Your task to perform on an android device: Open Amazon Image 0: 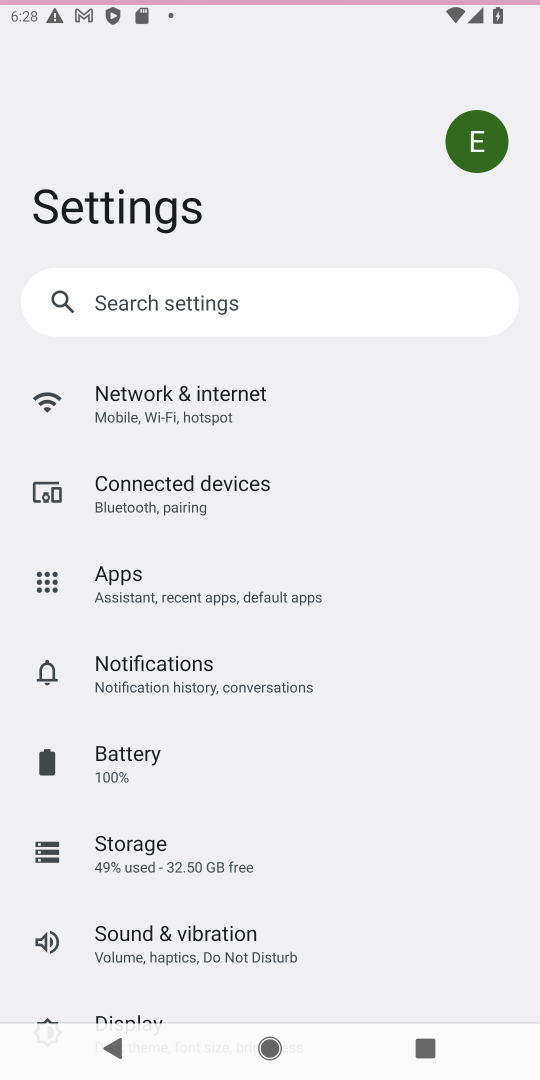
Step 0: press home button
Your task to perform on an android device: Open Amazon Image 1: 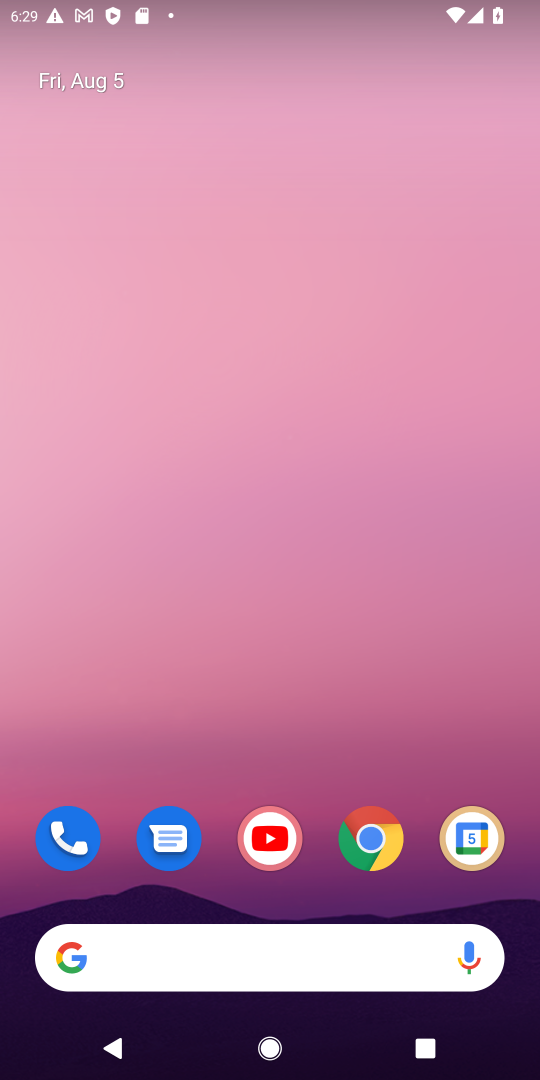
Step 1: click (68, 961)
Your task to perform on an android device: Open Amazon Image 2: 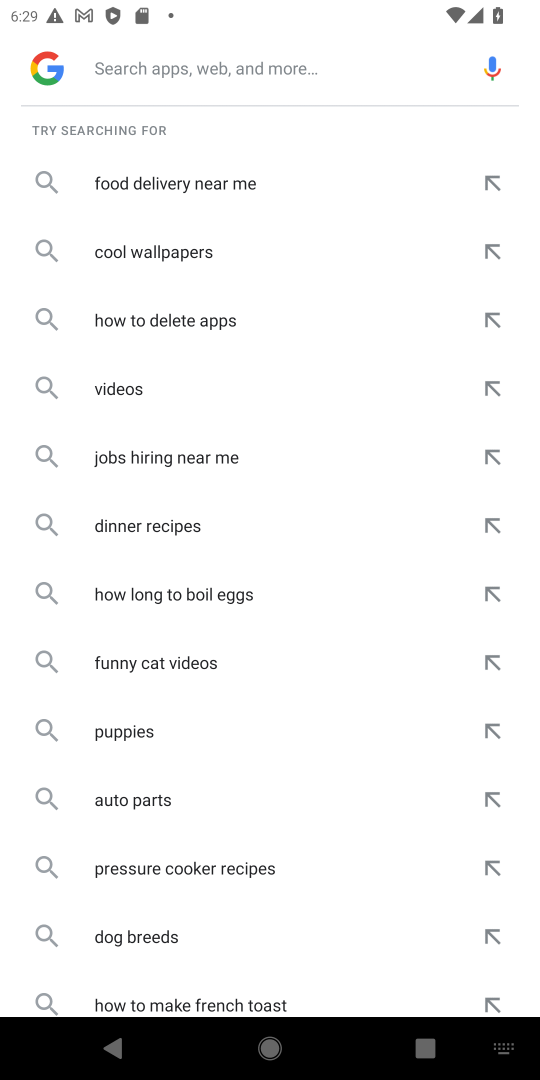
Step 2: click (181, 71)
Your task to perform on an android device: Open Amazon Image 3: 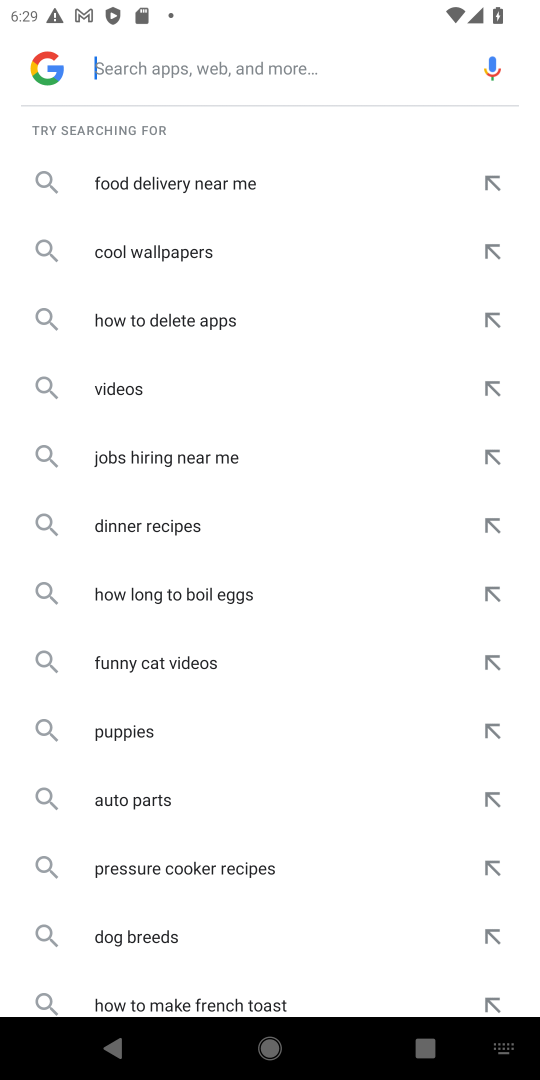
Step 3: click (169, 49)
Your task to perform on an android device: Open Amazon Image 4: 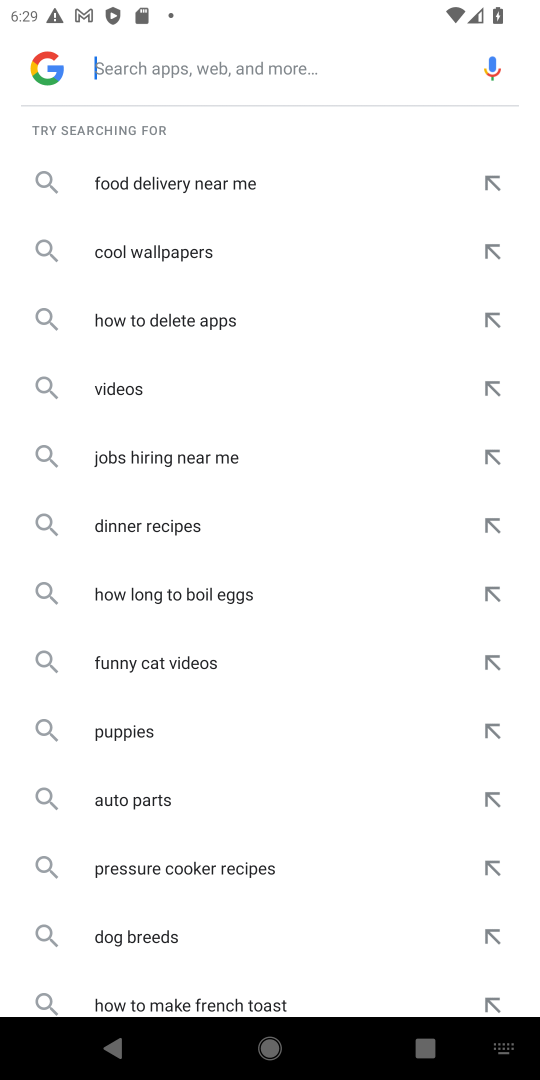
Step 4: type "Amazon"
Your task to perform on an android device: Open Amazon Image 5: 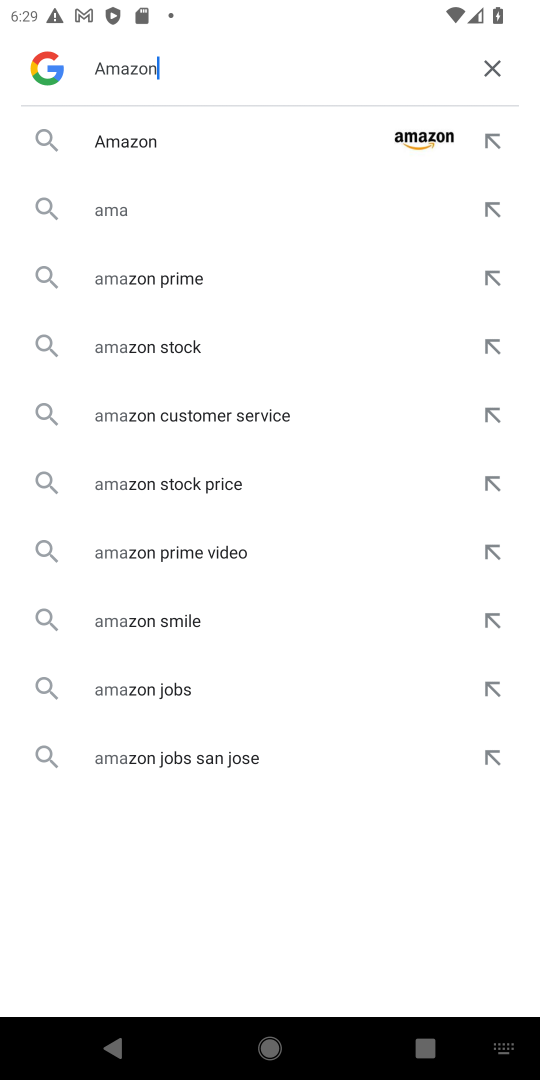
Step 5: press enter
Your task to perform on an android device: Open Amazon Image 6: 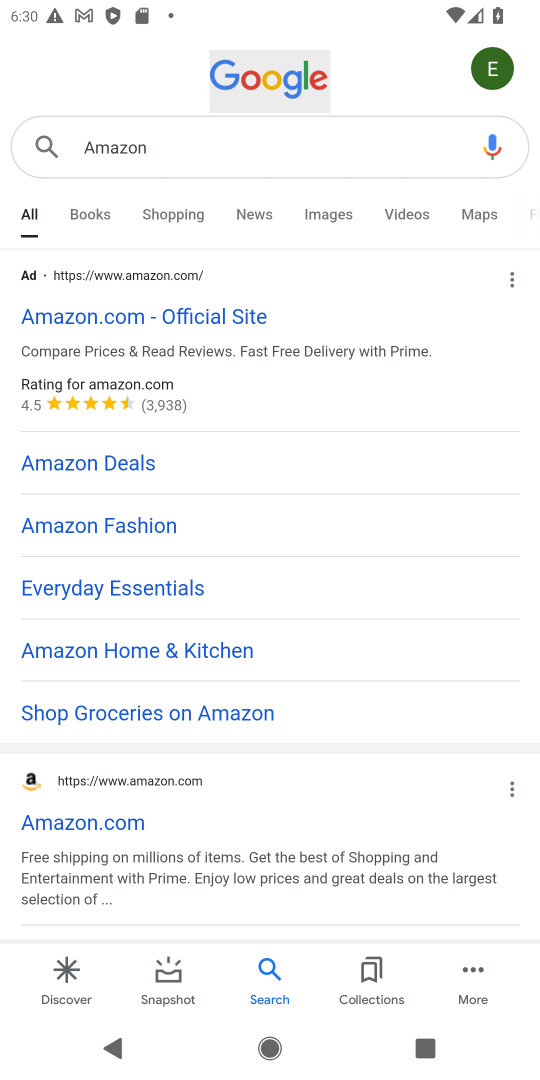
Step 6: press home button
Your task to perform on an android device: Open Amazon Image 7: 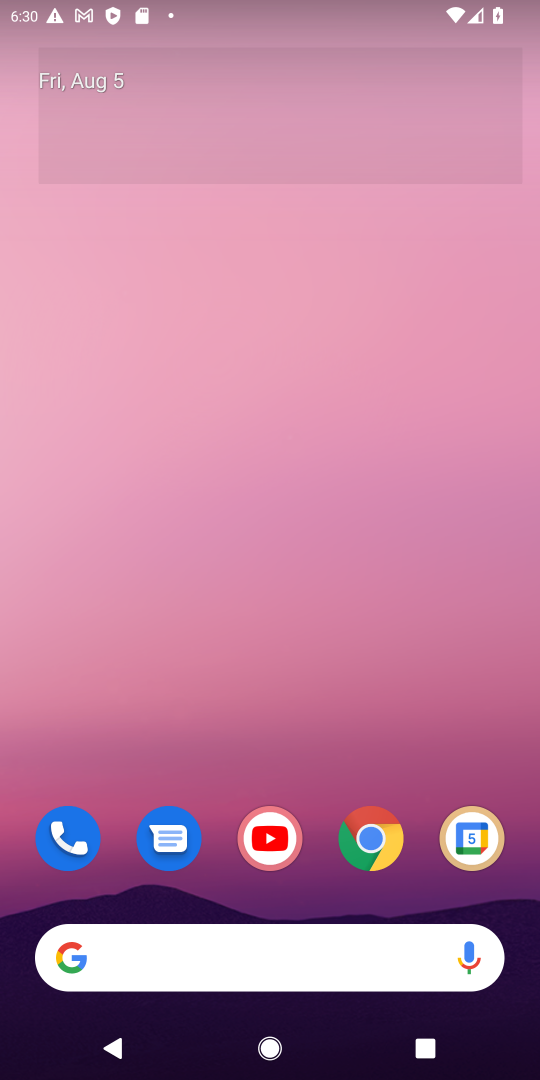
Step 7: click (79, 964)
Your task to perform on an android device: Open Amazon Image 8: 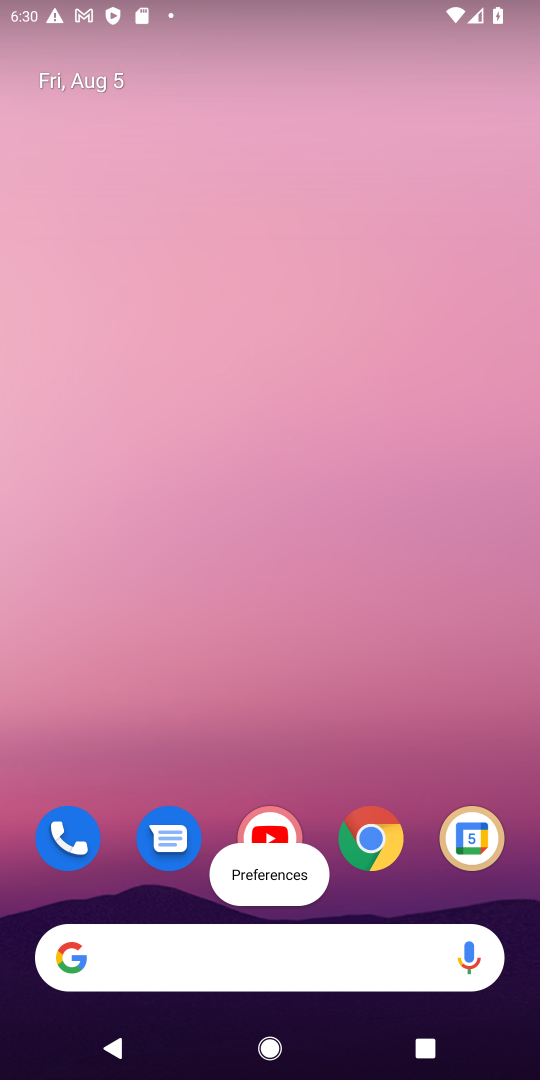
Step 8: click (79, 964)
Your task to perform on an android device: Open Amazon Image 9: 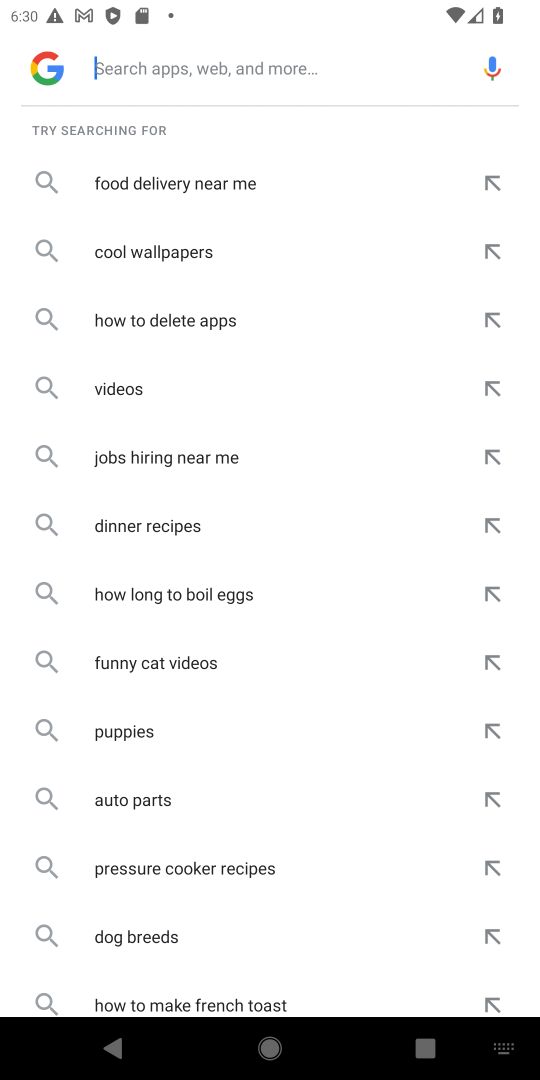
Step 9: type "Amazon"
Your task to perform on an android device: Open Amazon Image 10: 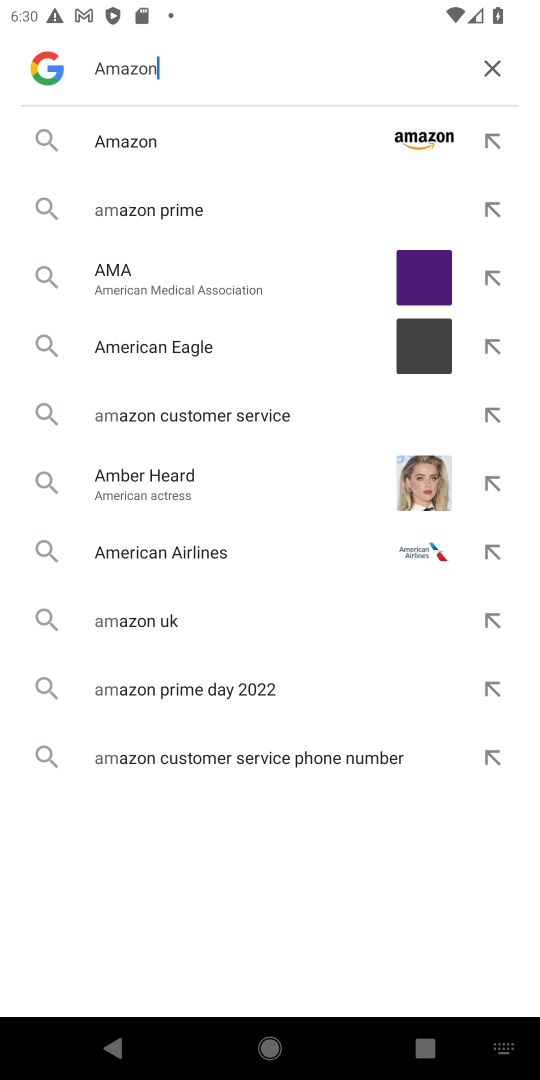
Step 10: press enter
Your task to perform on an android device: Open Amazon Image 11: 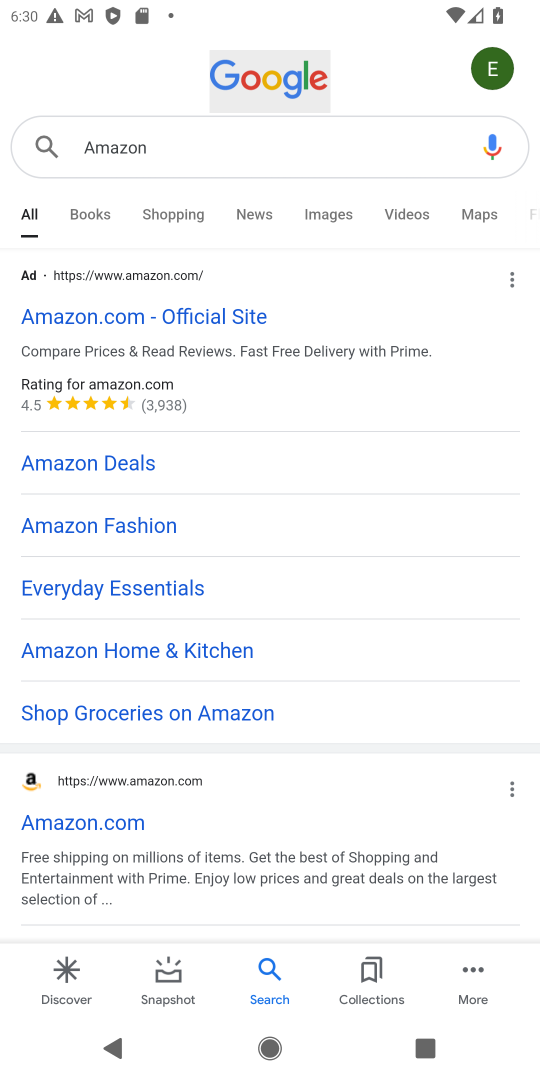
Step 11: click (110, 326)
Your task to perform on an android device: Open Amazon Image 12: 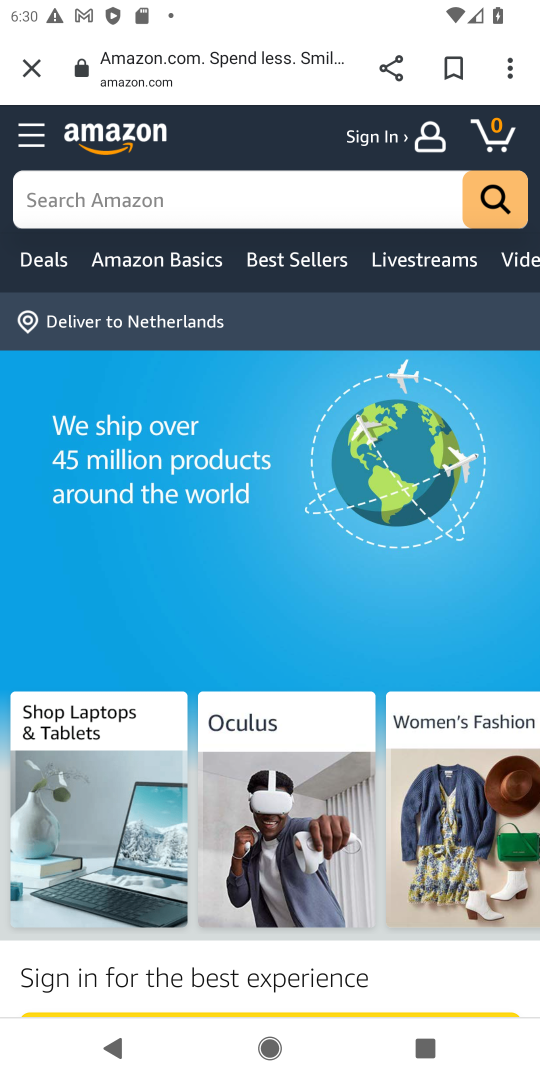
Step 12: task complete